Your task to perform on an android device: Go to location settings Image 0: 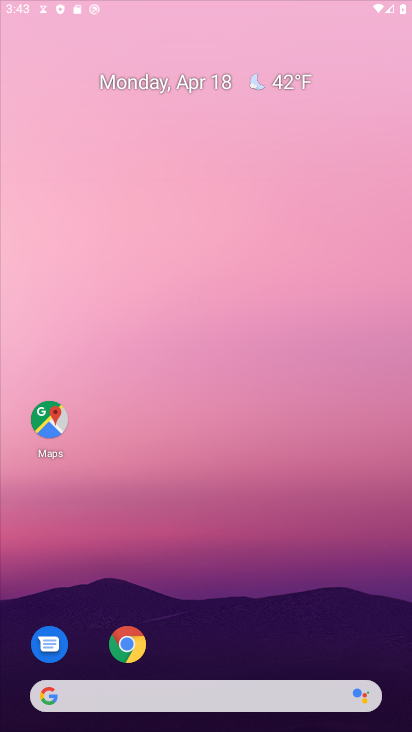
Step 0: drag from (234, 548) to (254, 104)
Your task to perform on an android device: Go to location settings Image 1: 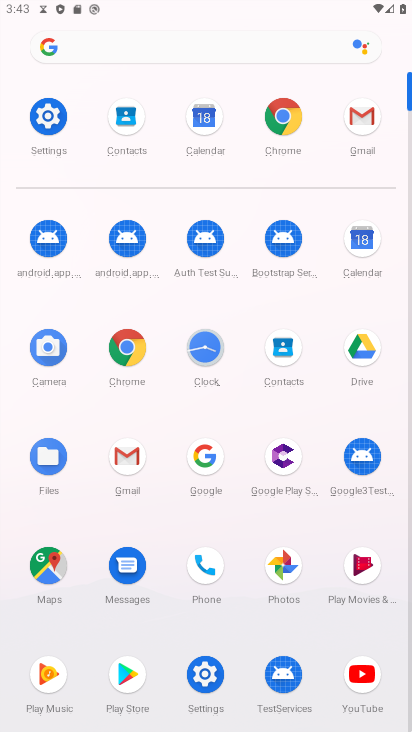
Step 1: click (55, 119)
Your task to perform on an android device: Go to location settings Image 2: 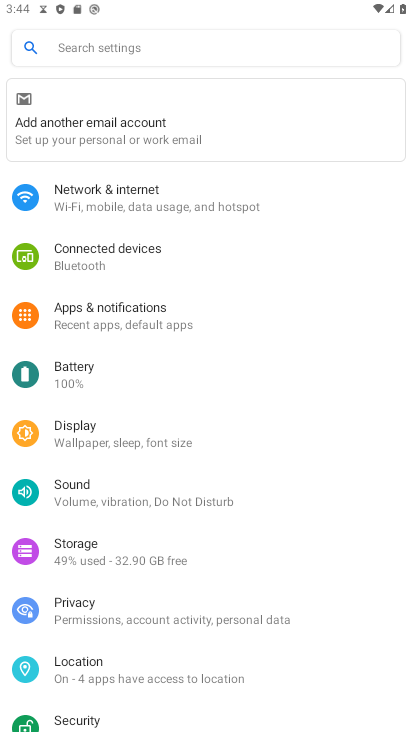
Step 2: click (131, 675)
Your task to perform on an android device: Go to location settings Image 3: 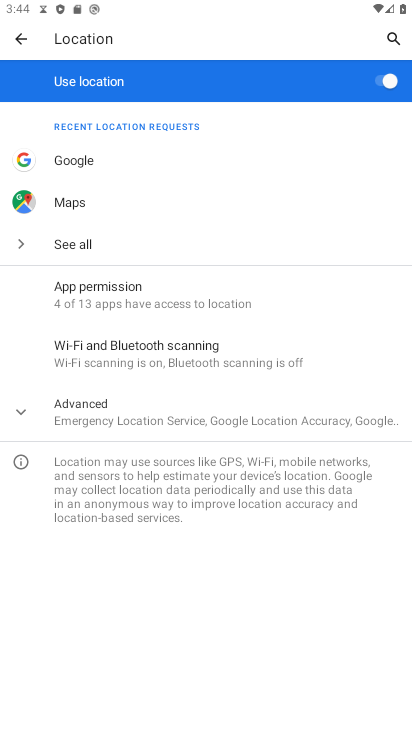
Step 3: task complete